Your task to perform on an android device: toggle pop-ups in chrome Image 0: 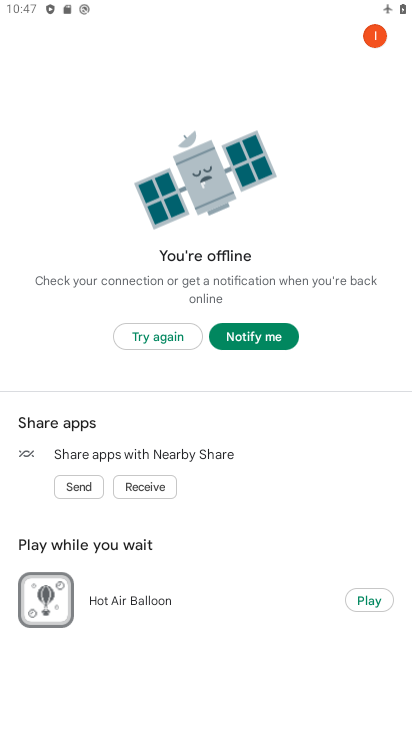
Step 0: press home button
Your task to perform on an android device: toggle pop-ups in chrome Image 1: 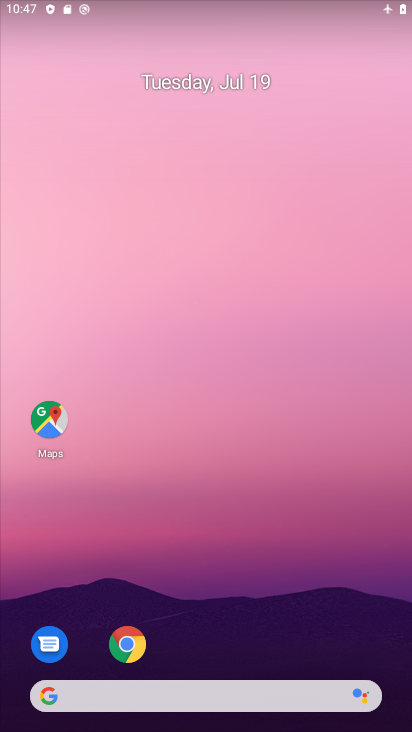
Step 1: click (134, 648)
Your task to perform on an android device: toggle pop-ups in chrome Image 2: 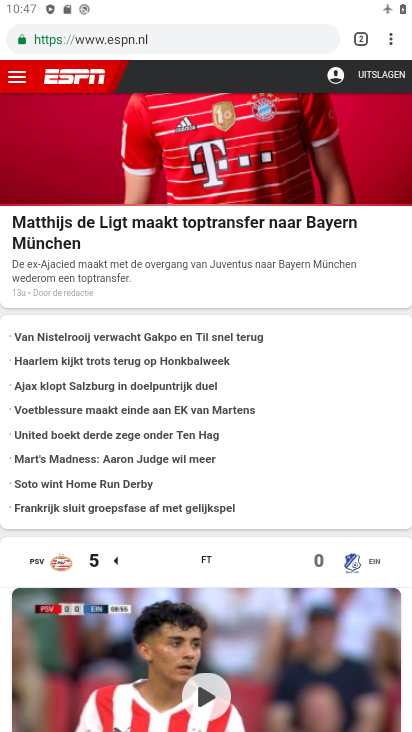
Step 2: click (391, 38)
Your task to perform on an android device: toggle pop-ups in chrome Image 3: 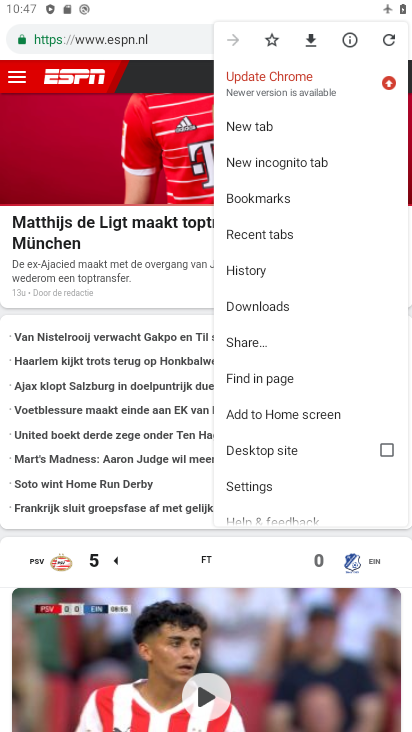
Step 3: click (248, 488)
Your task to perform on an android device: toggle pop-ups in chrome Image 4: 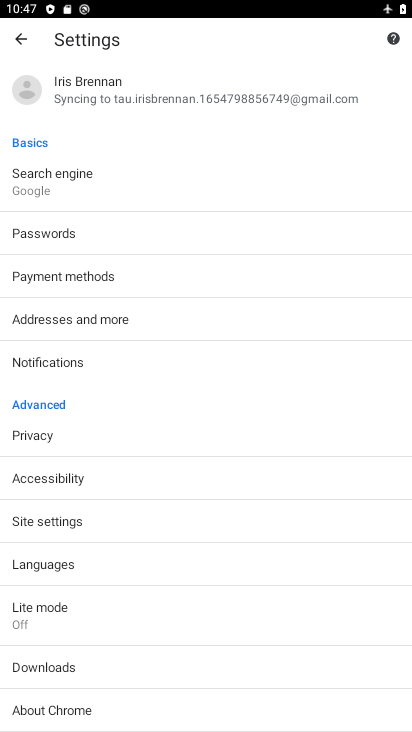
Step 4: click (50, 511)
Your task to perform on an android device: toggle pop-ups in chrome Image 5: 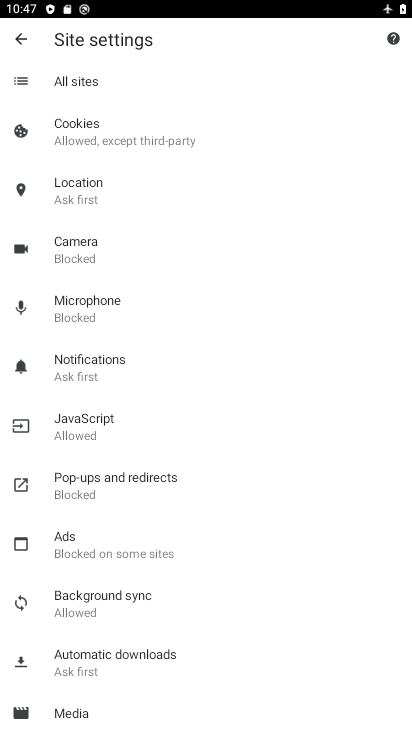
Step 5: click (109, 474)
Your task to perform on an android device: toggle pop-ups in chrome Image 6: 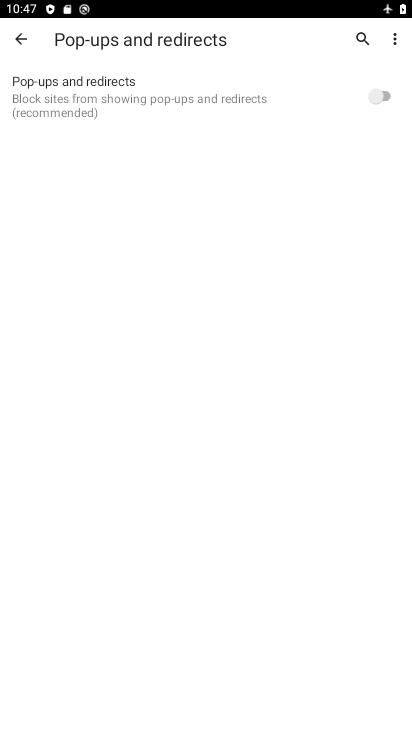
Step 6: click (380, 96)
Your task to perform on an android device: toggle pop-ups in chrome Image 7: 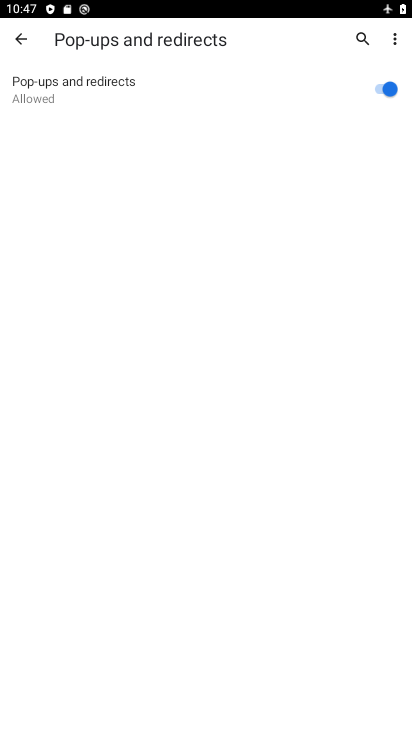
Step 7: task complete